Your task to perform on an android device: Open Google Maps and go to "Timeline" Image 0: 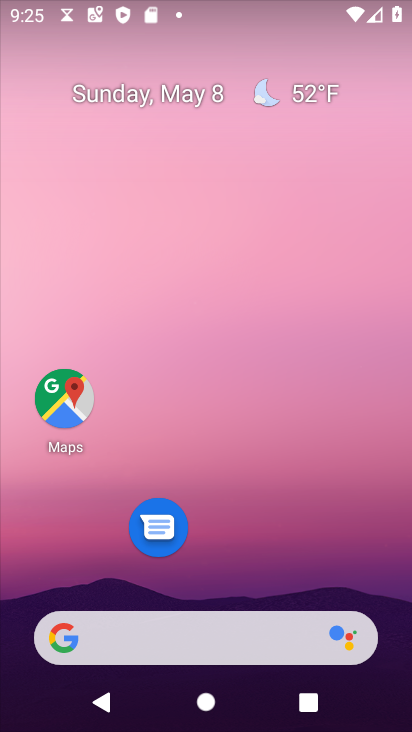
Step 0: click (61, 404)
Your task to perform on an android device: Open Google Maps and go to "Timeline" Image 1: 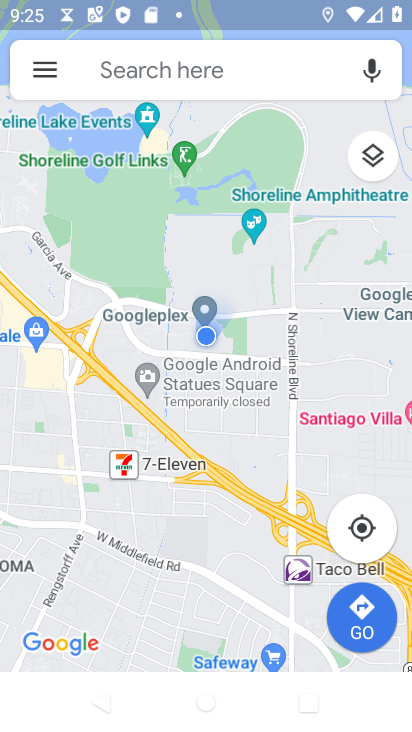
Step 1: click (42, 67)
Your task to perform on an android device: Open Google Maps and go to "Timeline" Image 2: 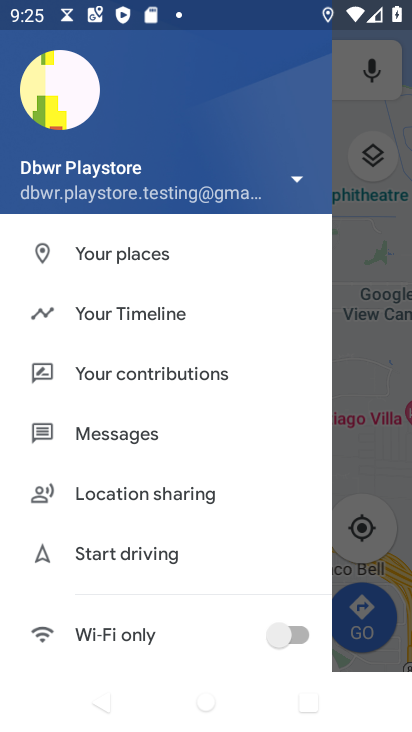
Step 2: click (179, 317)
Your task to perform on an android device: Open Google Maps and go to "Timeline" Image 3: 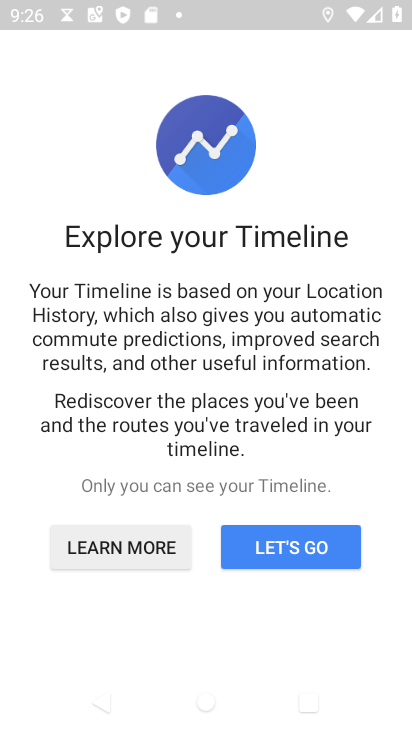
Step 3: click (280, 554)
Your task to perform on an android device: Open Google Maps and go to "Timeline" Image 4: 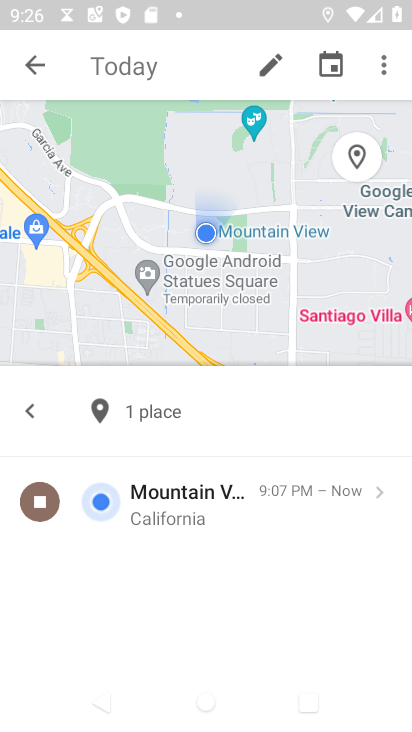
Step 4: task complete